Your task to perform on an android device: toggle sleep mode Image 0: 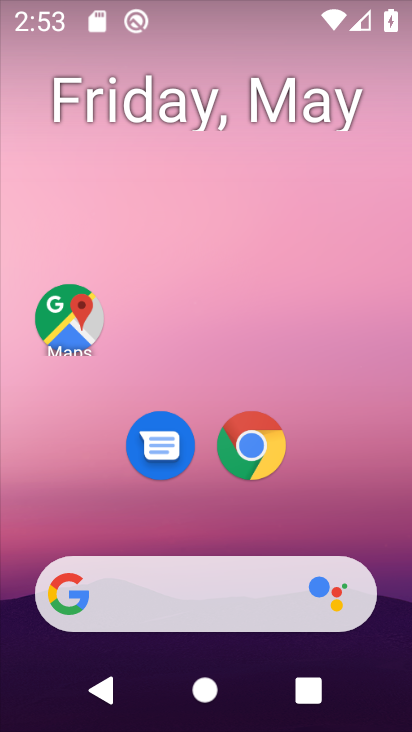
Step 0: click (266, 217)
Your task to perform on an android device: toggle sleep mode Image 1: 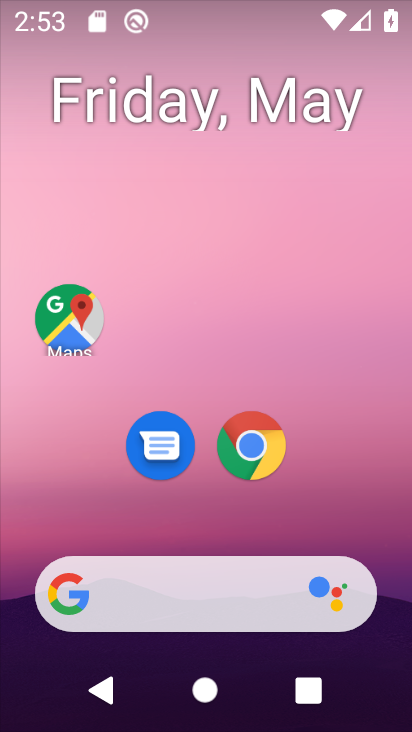
Step 1: drag from (195, 528) to (227, 270)
Your task to perform on an android device: toggle sleep mode Image 2: 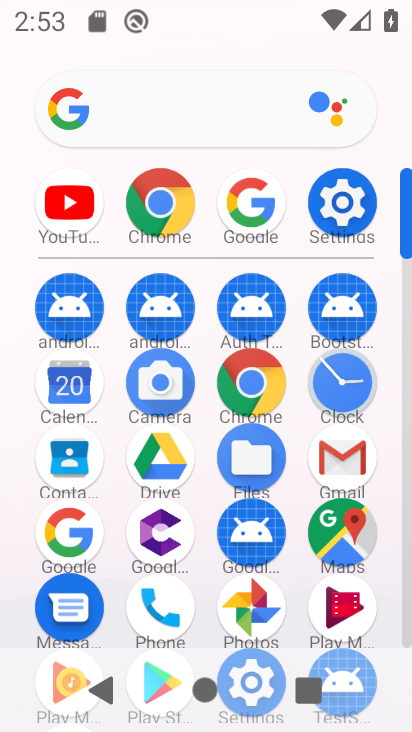
Step 2: click (337, 202)
Your task to perform on an android device: toggle sleep mode Image 3: 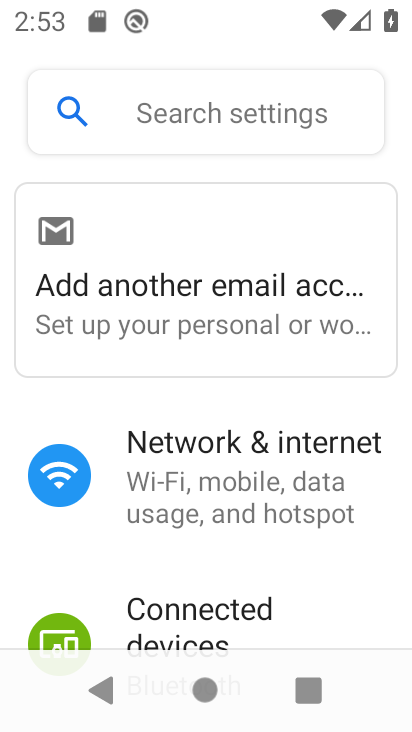
Step 3: drag from (182, 556) to (294, 173)
Your task to perform on an android device: toggle sleep mode Image 4: 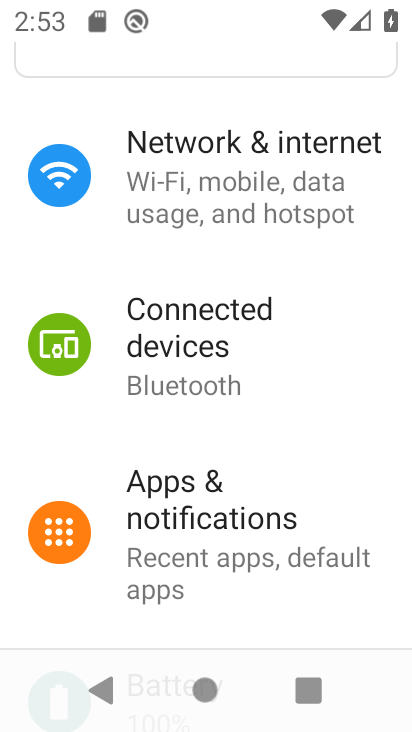
Step 4: drag from (237, 490) to (324, 89)
Your task to perform on an android device: toggle sleep mode Image 5: 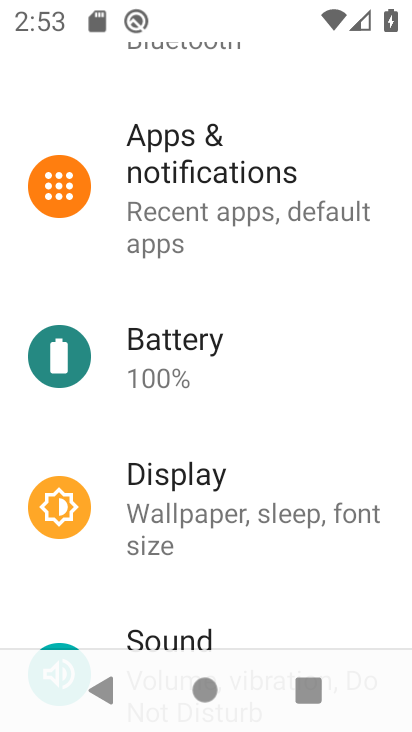
Step 5: click (182, 471)
Your task to perform on an android device: toggle sleep mode Image 6: 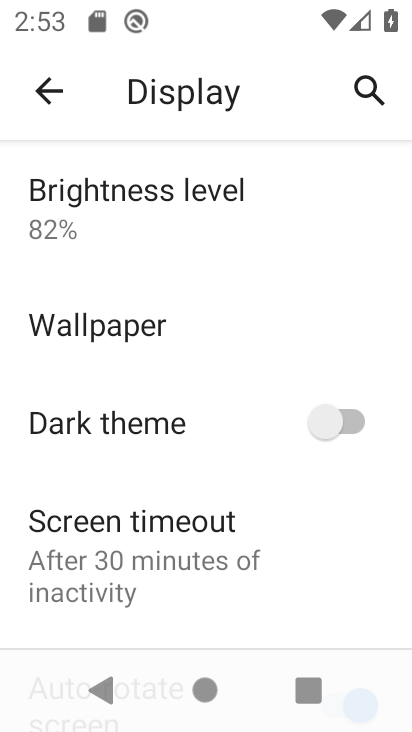
Step 6: drag from (217, 593) to (305, 185)
Your task to perform on an android device: toggle sleep mode Image 7: 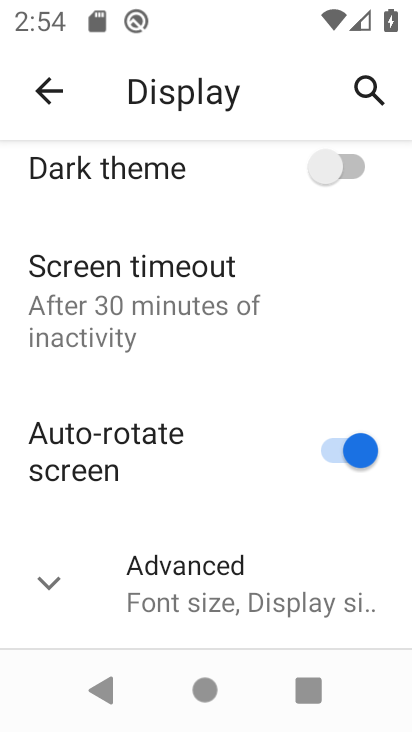
Step 7: click (121, 258)
Your task to perform on an android device: toggle sleep mode Image 8: 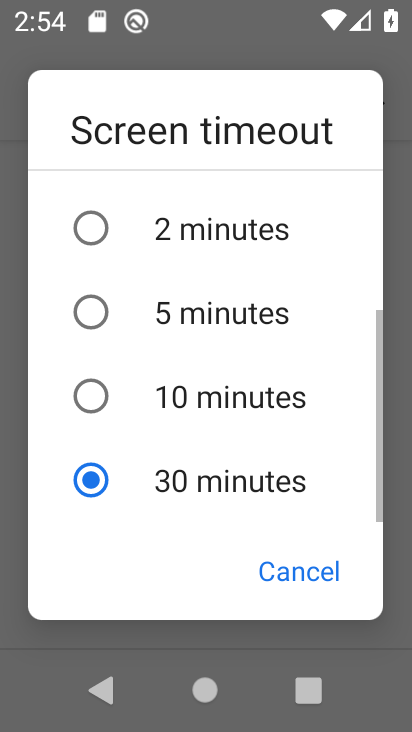
Step 8: task complete